Your task to perform on an android device: toggle priority inbox in the gmail app Image 0: 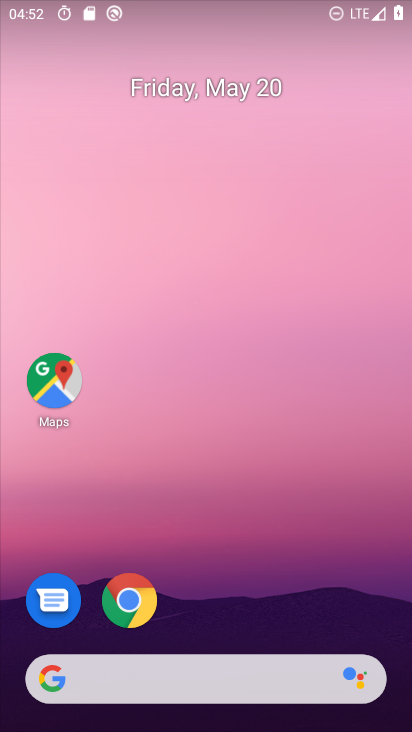
Step 0: drag from (232, 586) to (304, 125)
Your task to perform on an android device: toggle priority inbox in the gmail app Image 1: 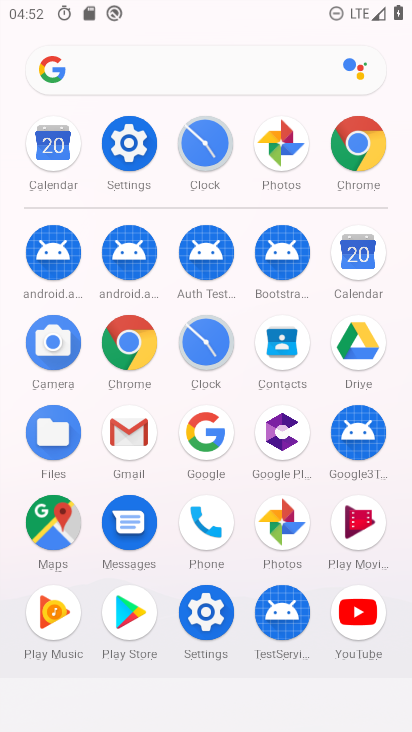
Step 1: click (122, 426)
Your task to perform on an android device: toggle priority inbox in the gmail app Image 2: 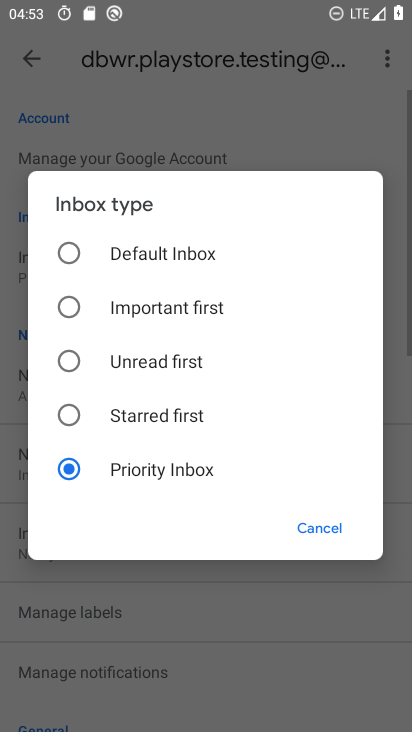
Step 2: click (161, 475)
Your task to perform on an android device: toggle priority inbox in the gmail app Image 3: 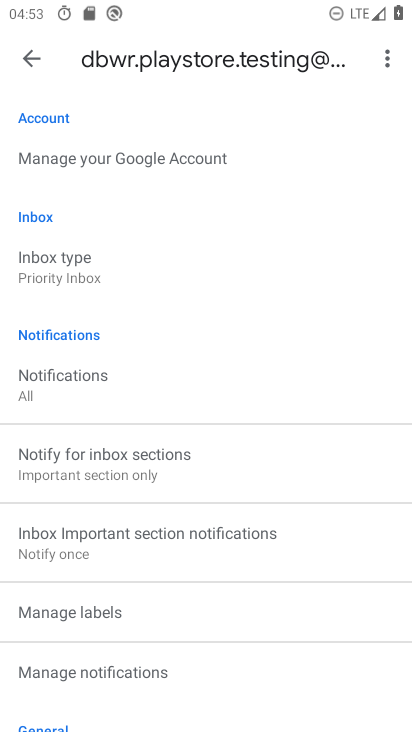
Step 3: task complete